Your task to perform on an android device: turn on bluetooth scan Image 0: 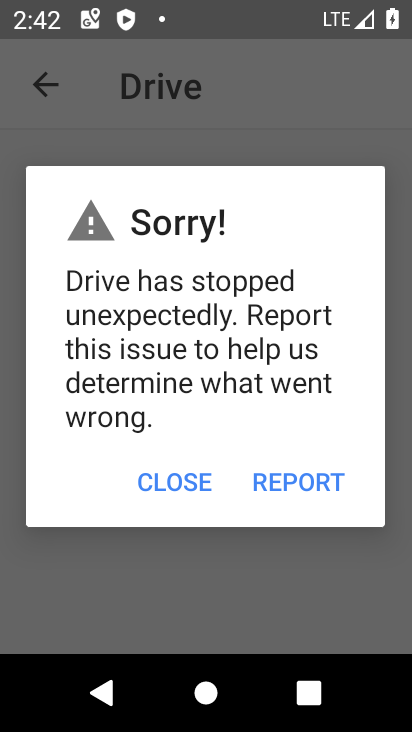
Step 0: press home button
Your task to perform on an android device: turn on bluetooth scan Image 1: 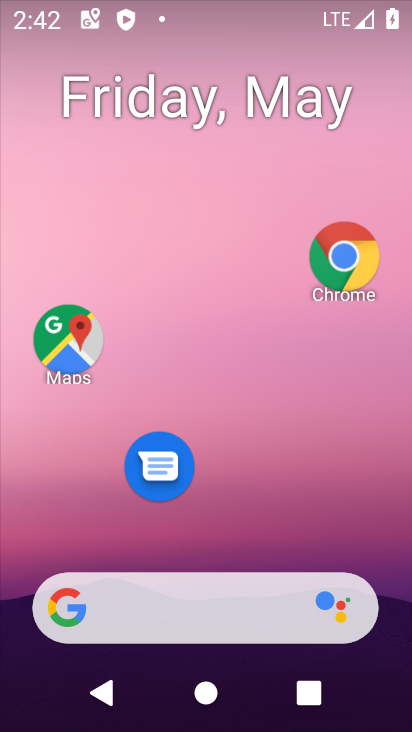
Step 1: drag from (281, 502) to (276, 73)
Your task to perform on an android device: turn on bluetooth scan Image 2: 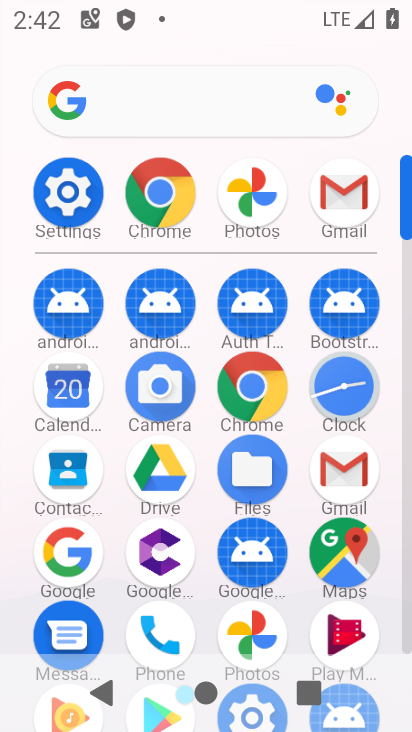
Step 2: drag from (302, 240) to (300, 34)
Your task to perform on an android device: turn on bluetooth scan Image 3: 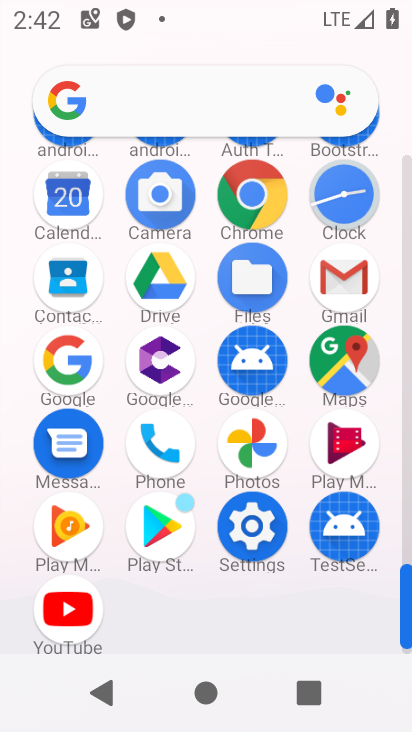
Step 3: click (246, 514)
Your task to perform on an android device: turn on bluetooth scan Image 4: 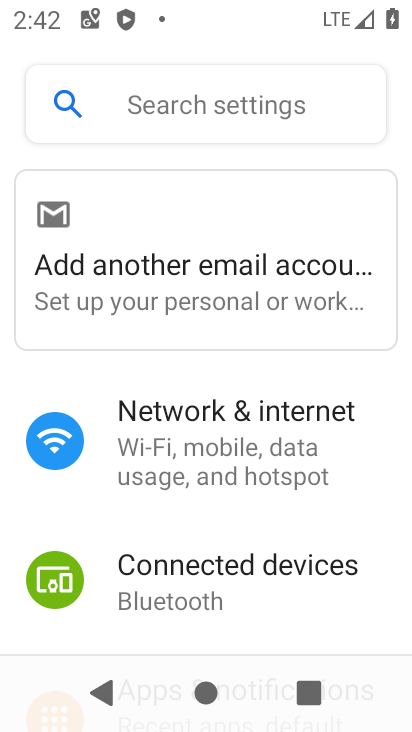
Step 4: drag from (312, 603) to (306, 160)
Your task to perform on an android device: turn on bluetooth scan Image 5: 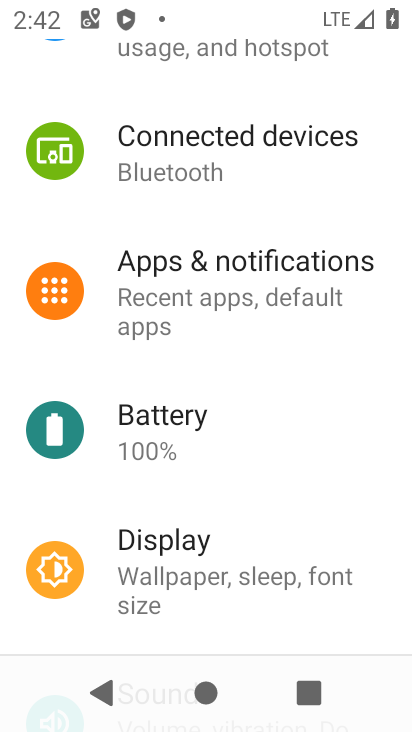
Step 5: drag from (314, 533) to (316, 231)
Your task to perform on an android device: turn on bluetooth scan Image 6: 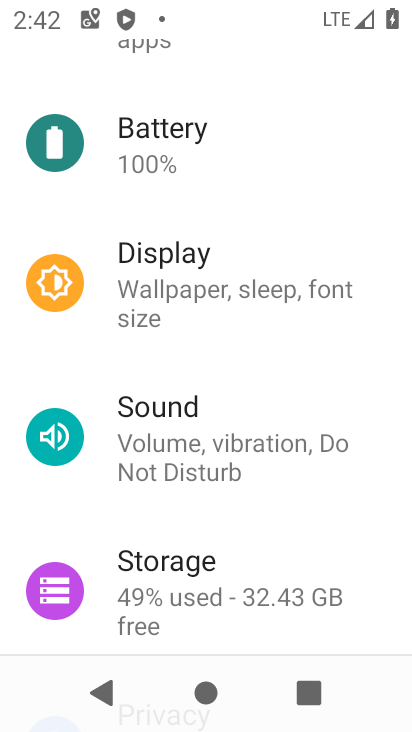
Step 6: drag from (305, 553) to (284, 220)
Your task to perform on an android device: turn on bluetooth scan Image 7: 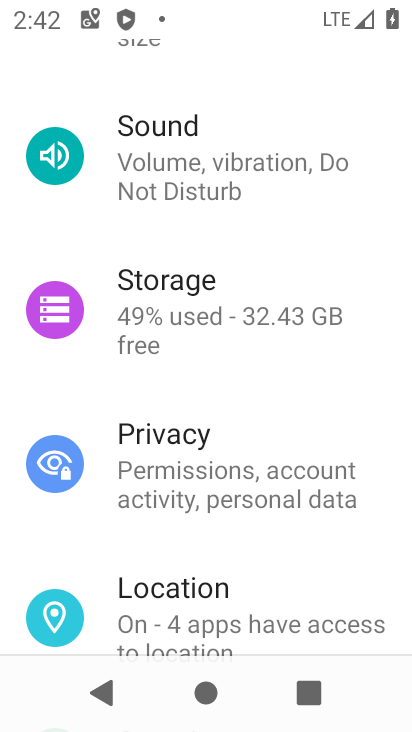
Step 7: drag from (284, 548) to (229, 315)
Your task to perform on an android device: turn on bluetooth scan Image 8: 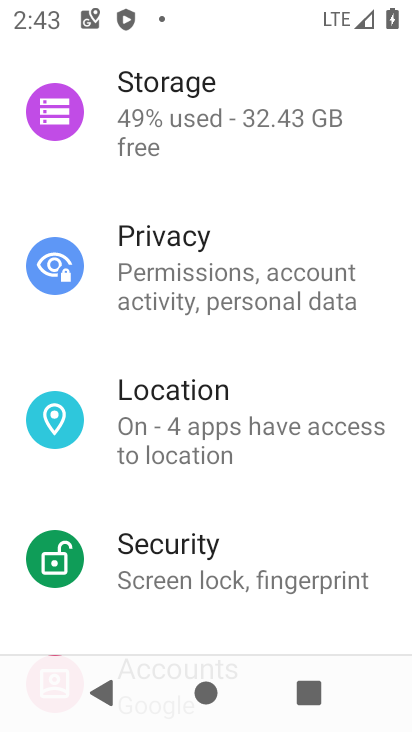
Step 8: click (238, 425)
Your task to perform on an android device: turn on bluetooth scan Image 9: 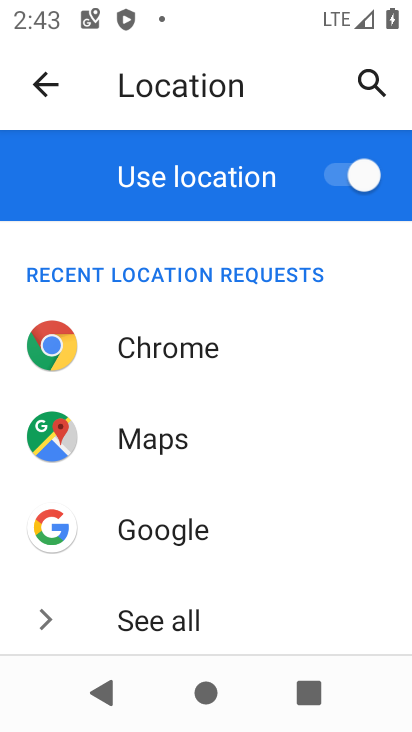
Step 9: drag from (305, 490) to (378, 181)
Your task to perform on an android device: turn on bluetooth scan Image 10: 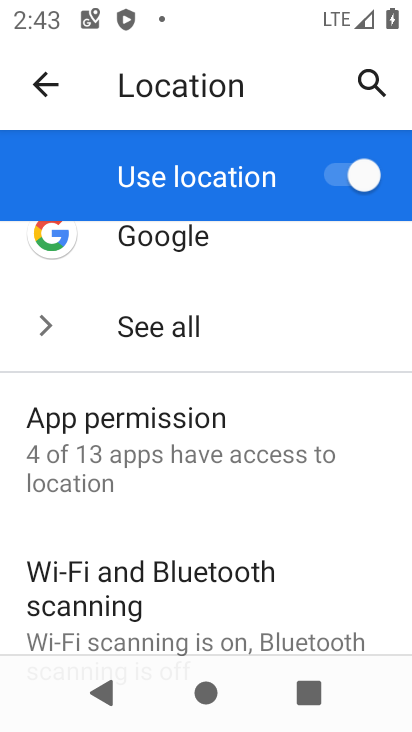
Step 10: click (183, 564)
Your task to perform on an android device: turn on bluetooth scan Image 11: 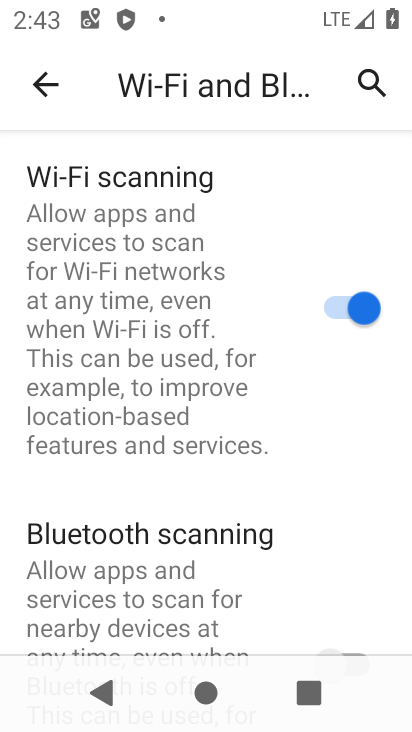
Step 11: drag from (312, 565) to (349, 226)
Your task to perform on an android device: turn on bluetooth scan Image 12: 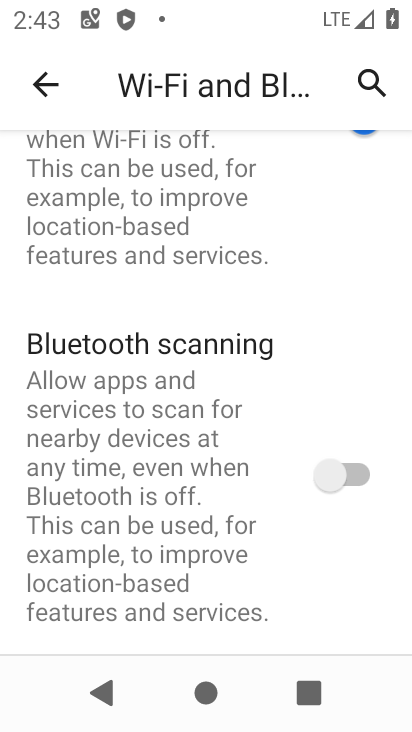
Step 12: click (352, 462)
Your task to perform on an android device: turn on bluetooth scan Image 13: 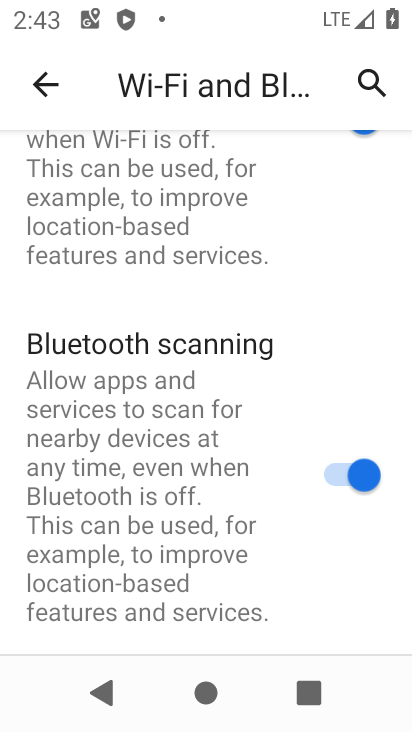
Step 13: task complete